Your task to perform on an android device: Open Google Image 0: 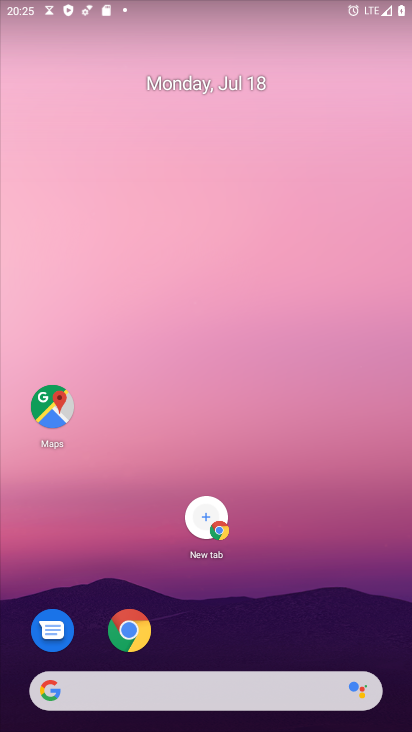
Step 0: drag from (242, 684) to (277, 174)
Your task to perform on an android device: Open Google Image 1: 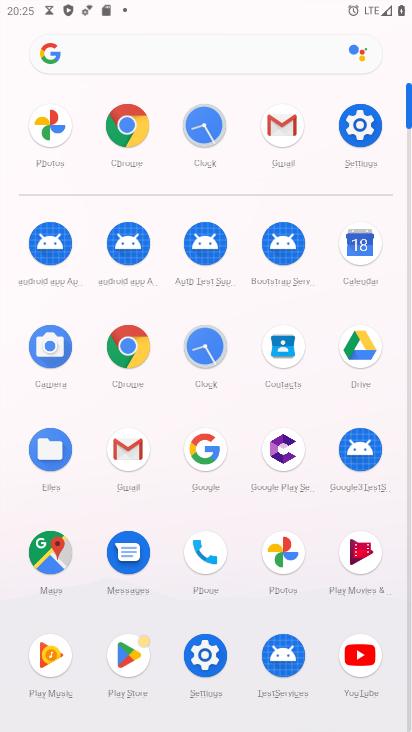
Step 1: click (188, 428)
Your task to perform on an android device: Open Google Image 2: 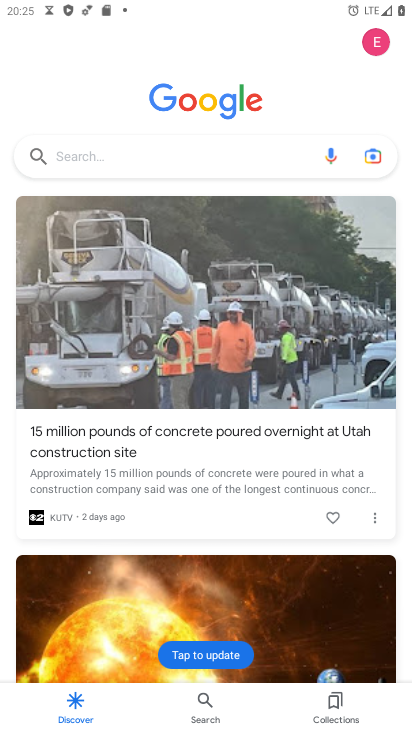
Step 2: task complete